Your task to perform on an android device: View the shopping cart on ebay. Add "logitech g pro" to the cart on ebay Image 0: 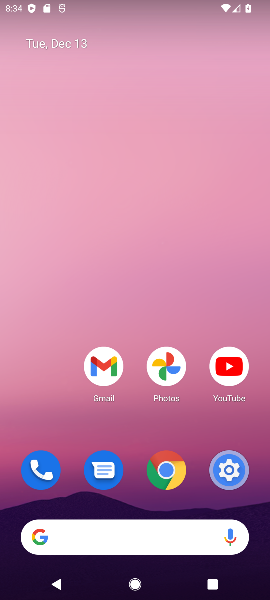
Step 0: drag from (57, 533) to (98, 530)
Your task to perform on an android device: View the shopping cart on ebay. Add "logitech g pro" to the cart on ebay Image 1: 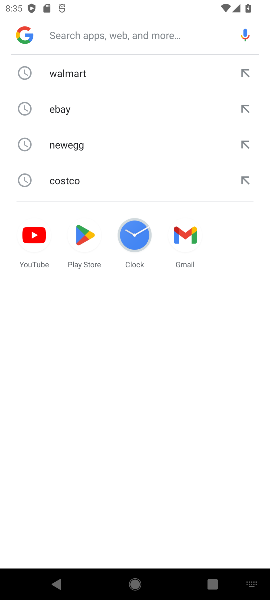
Step 1: type "ebay"
Your task to perform on an android device: View the shopping cart on ebay. Add "logitech g pro" to the cart on ebay Image 2: 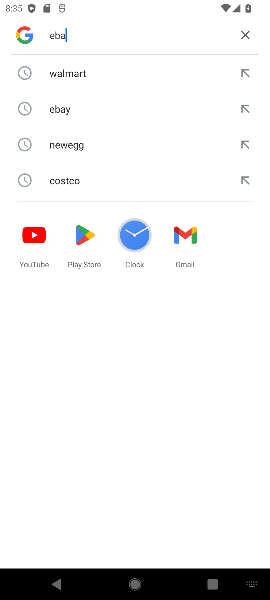
Step 2: press enter
Your task to perform on an android device: View the shopping cart on ebay. Add "logitech g pro" to the cart on ebay Image 3: 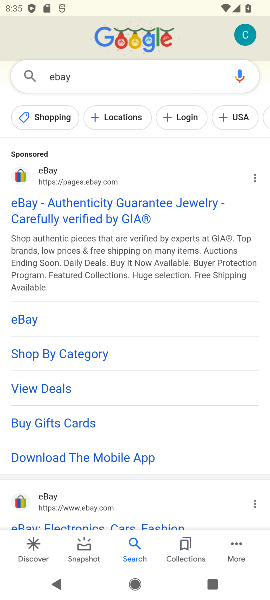
Step 3: click (63, 201)
Your task to perform on an android device: View the shopping cart on ebay. Add "logitech g pro" to the cart on ebay Image 4: 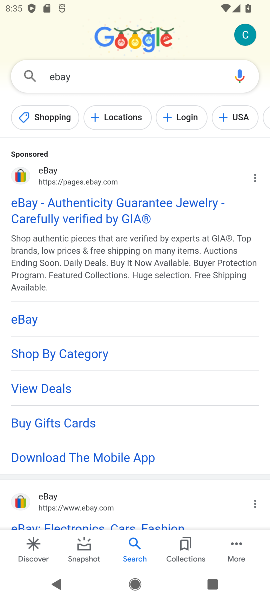
Step 4: click (72, 204)
Your task to perform on an android device: View the shopping cart on ebay. Add "logitech g pro" to the cart on ebay Image 5: 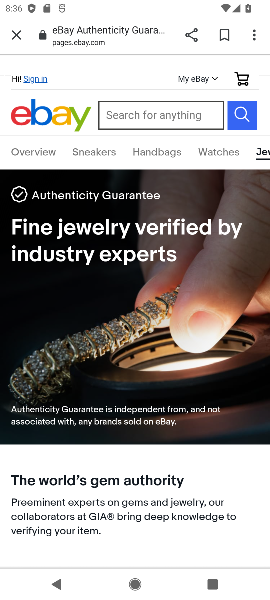
Step 5: click (115, 117)
Your task to perform on an android device: View the shopping cart on ebay. Add "logitech g pro" to the cart on ebay Image 6: 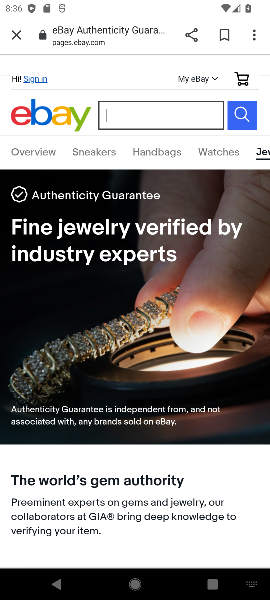
Step 6: type "logitech g pro"
Your task to perform on an android device: View the shopping cart on ebay. Add "logitech g pro" to the cart on ebay Image 7: 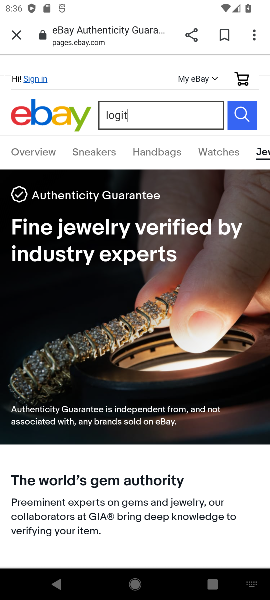
Step 7: press enter
Your task to perform on an android device: View the shopping cart on ebay. Add "logitech g pro" to the cart on ebay Image 8: 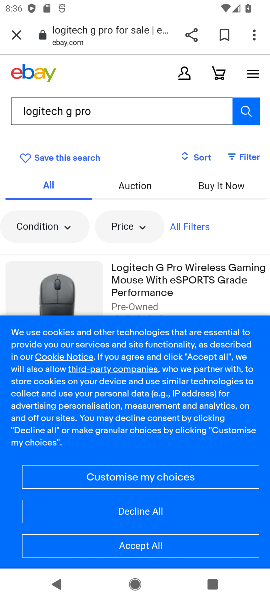
Step 8: click (127, 278)
Your task to perform on an android device: View the shopping cart on ebay. Add "logitech g pro" to the cart on ebay Image 9: 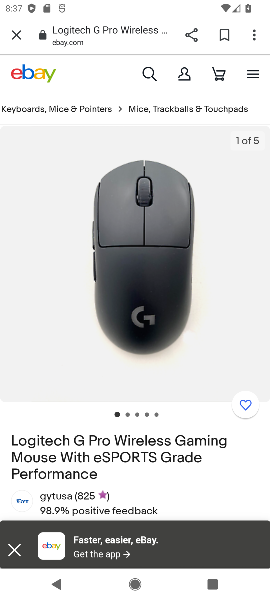
Step 9: drag from (161, 482) to (160, 212)
Your task to perform on an android device: View the shopping cart on ebay. Add "logitech g pro" to the cart on ebay Image 10: 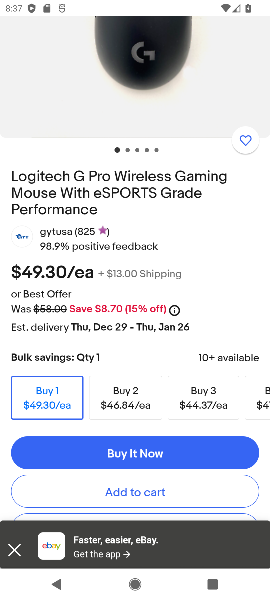
Step 10: click (113, 492)
Your task to perform on an android device: View the shopping cart on ebay. Add "logitech g pro" to the cart on ebay Image 11: 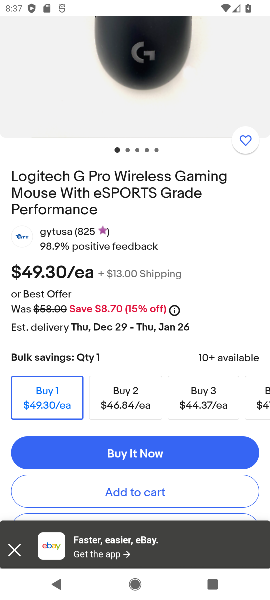
Step 11: click (121, 488)
Your task to perform on an android device: View the shopping cart on ebay. Add "logitech g pro" to the cart on ebay Image 12: 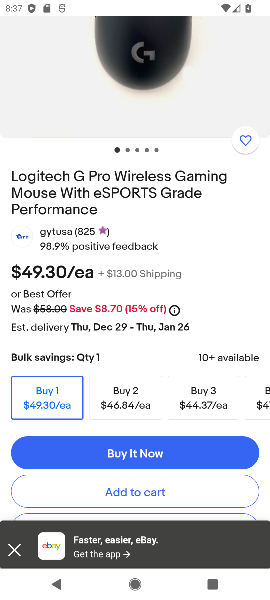
Step 12: click (130, 495)
Your task to perform on an android device: View the shopping cart on ebay. Add "logitech g pro" to the cart on ebay Image 13: 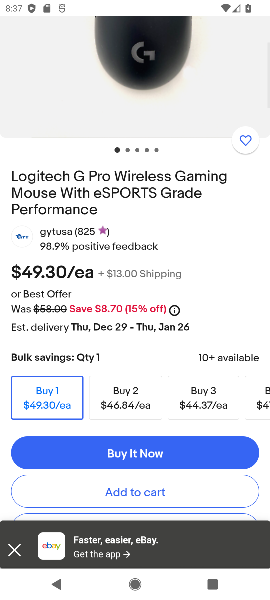
Step 13: click (12, 547)
Your task to perform on an android device: View the shopping cart on ebay. Add "logitech g pro" to the cart on ebay Image 14: 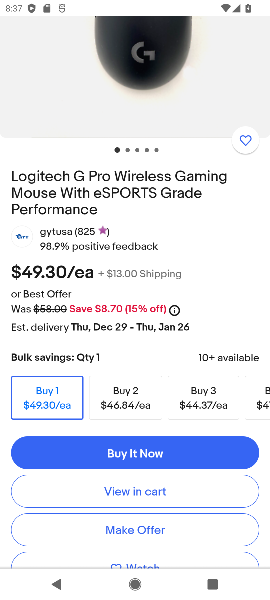
Step 14: task complete